Your task to perform on an android device: toggle priority inbox in the gmail app Image 0: 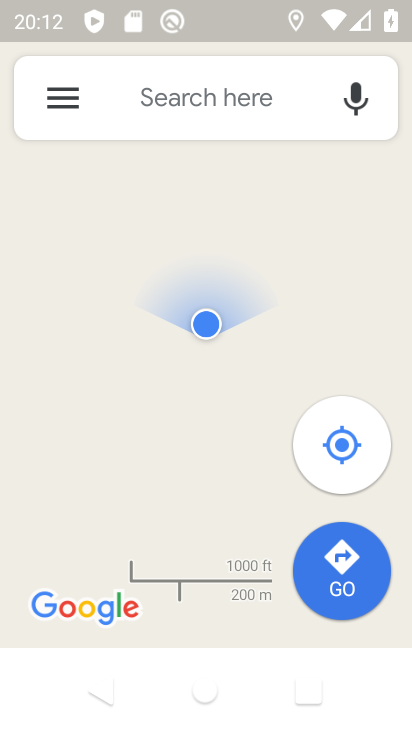
Step 0: press home button
Your task to perform on an android device: toggle priority inbox in the gmail app Image 1: 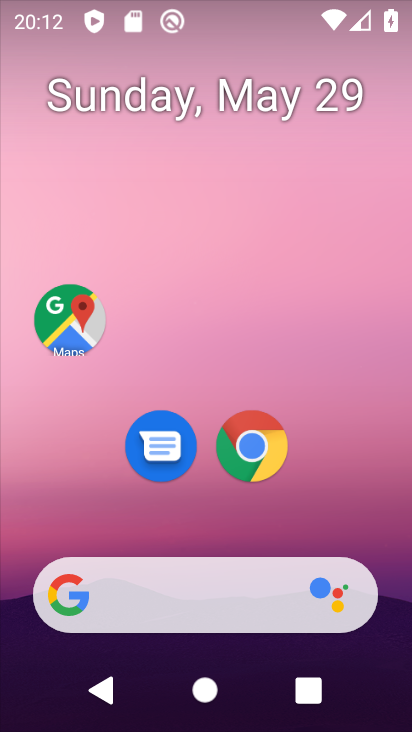
Step 1: drag from (199, 585) to (230, 92)
Your task to perform on an android device: toggle priority inbox in the gmail app Image 2: 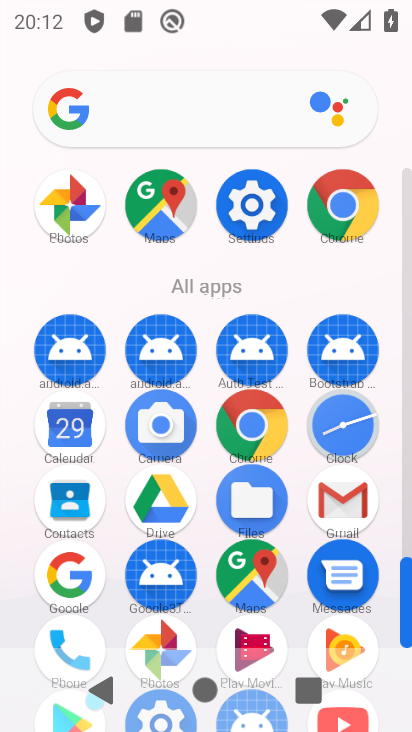
Step 2: click (340, 501)
Your task to perform on an android device: toggle priority inbox in the gmail app Image 3: 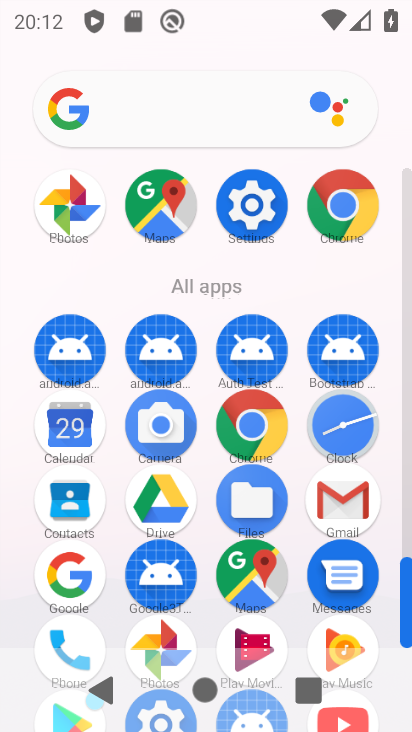
Step 3: click (340, 501)
Your task to perform on an android device: toggle priority inbox in the gmail app Image 4: 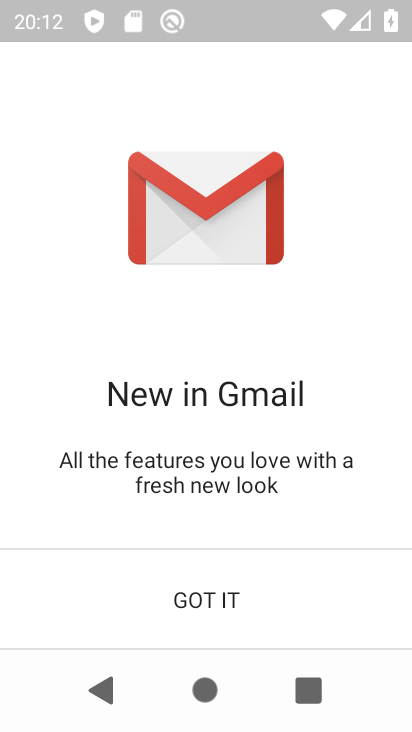
Step 4: click (224, 593)
Your task to perform on an android device: toggle priority inbox in the gmail app Image 5: 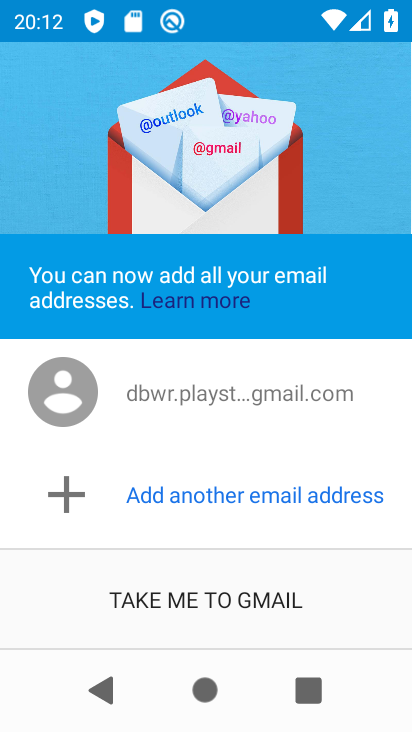
Step 5: click (198, 602)
Your task to perform on an android device: toggle priority inbox in the gmail app Image 6: 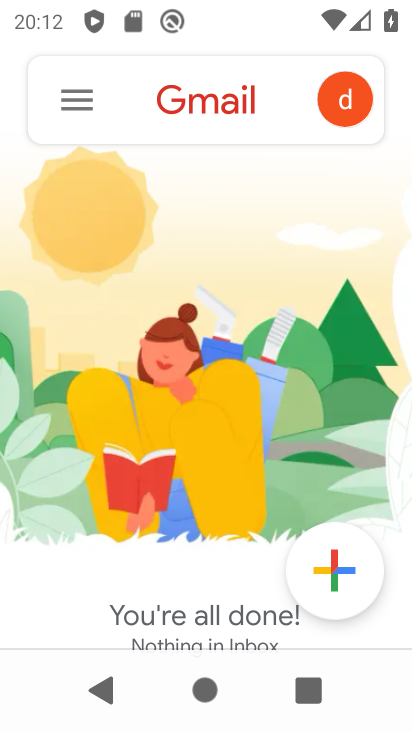
Step 6: click (77, 110)
Your task to perform on an android device: toggle priority inbox in the gmail app Image 7: 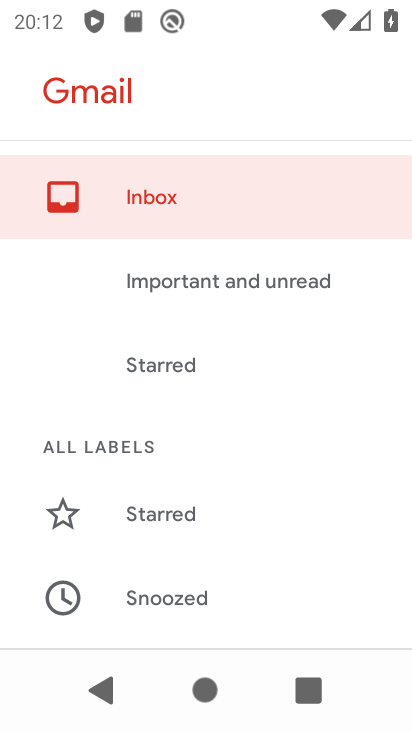
Step 7: drag from (162, 568) to (177, 135)
Your task to perform on an android device: toggle priority inbox in the gmail app Image 8: 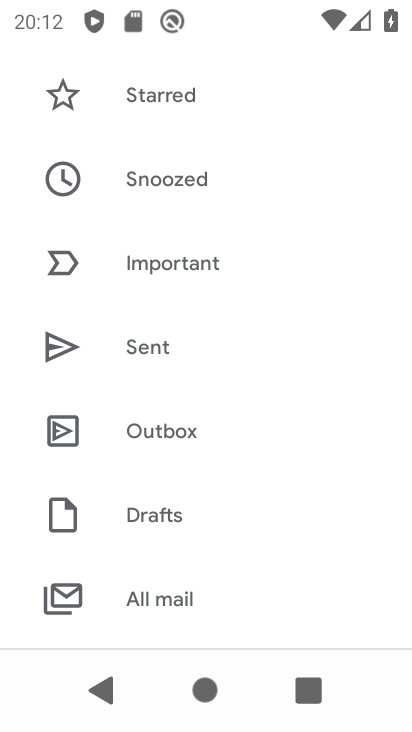
Step 8: drag from (132, 565) to (87, 21)
Your task to perform on an android device: toggle priority inbox in the gmail app Image 9: 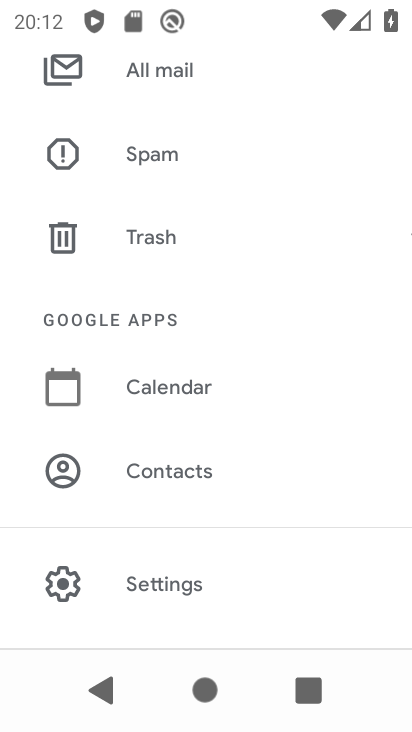
Step 9: click (142, 580)
Your task to perform on an android device: toggle priority inbox in the gmail app Image 10: 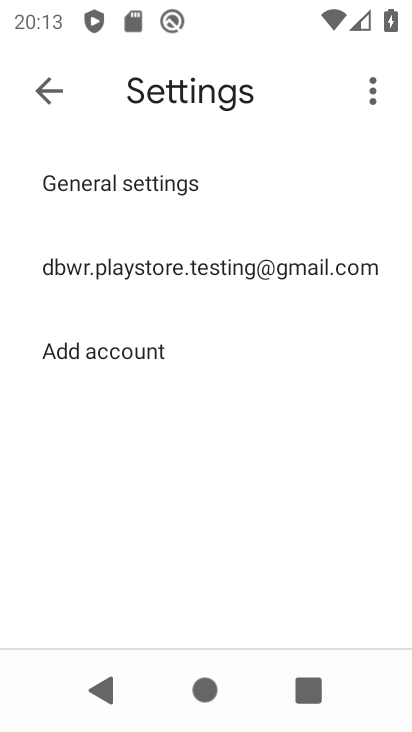
Step 10: click (106, 269)
Your task to perform on an android device: toggle priority inbox in the gmail app Image 11: 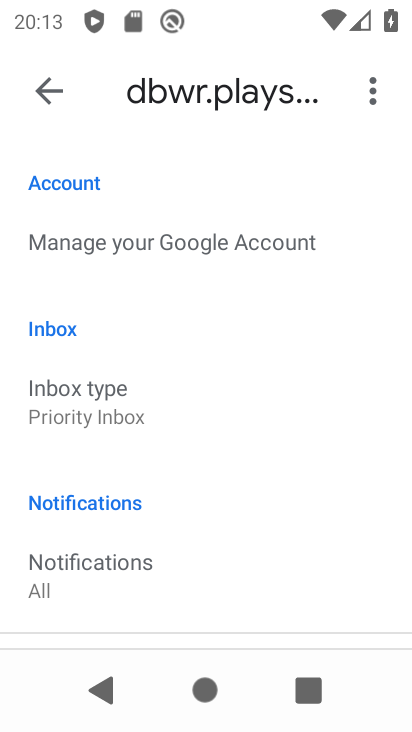
Step 11: click (106, 414)
Your task to perform on an android device: toggle priority inbox in the gmail app Image 12: 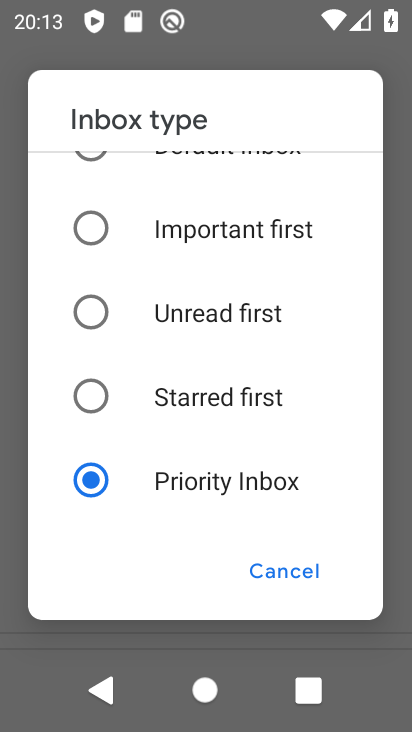
Step 12: click (90, 229)
Your task to perform on an android device: toggle priority inbox in the gmail app Image 13: 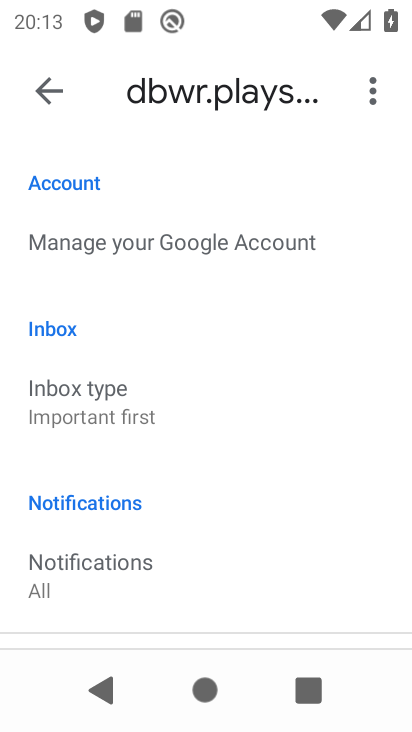
Step 13: task complete